Your task to perform on an android device: Search for Italian restaurants on Maps Image 0: 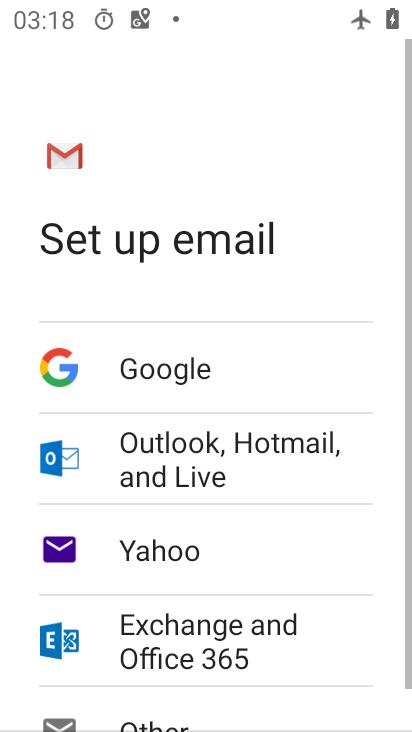
Step 0: press home button
Your task to perform on an android device: Search for Italian restaurants on Maps Image 1: 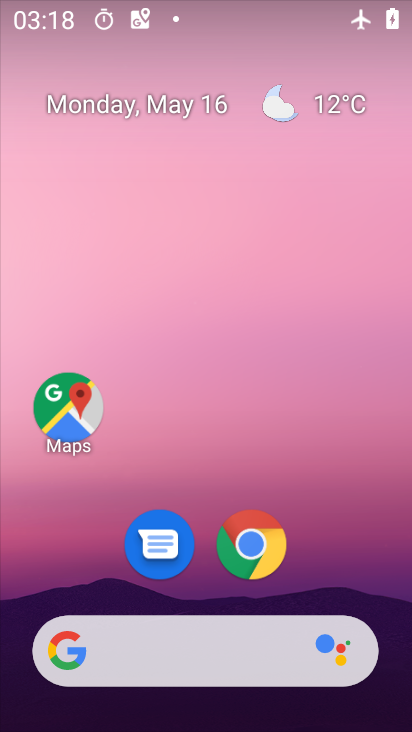
Step 1: drag from (208, 723) to (192, 184)
Your task to perform on an android device: Search for Italian restaurants on Maps Image 2: 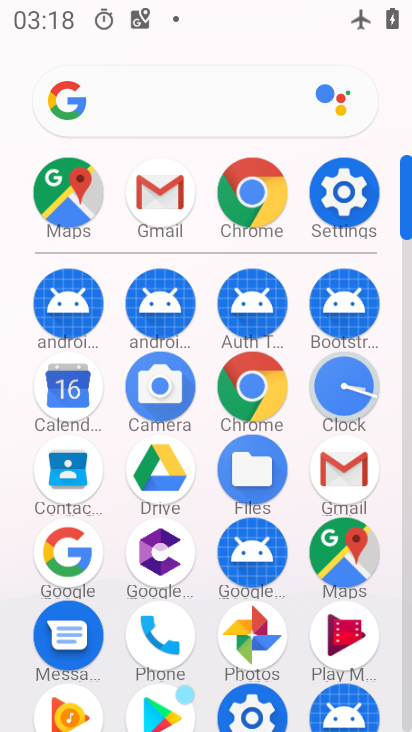
Step 2: click (336, 550)
Your task to perform on an android device: Search for Italian restaurants on Maps Image 3: 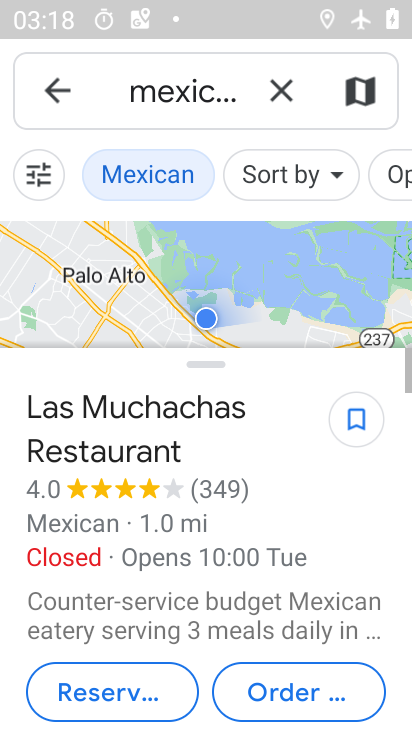
Step 3: click (281, 83)
Your task to perform on an android device: Search for Italian restaurants on Maps Image 4: 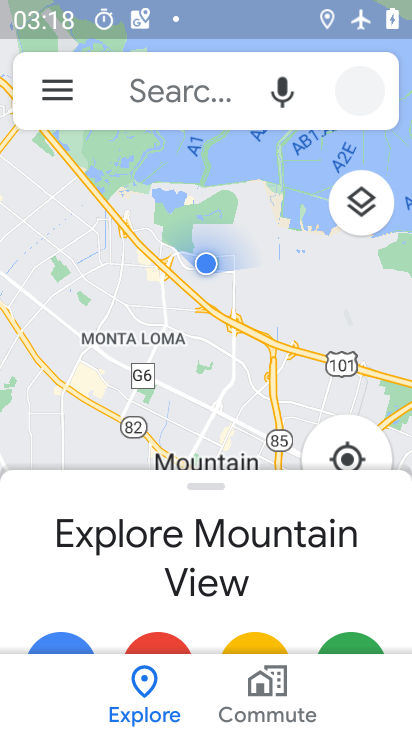
Step 4: click (177, 91)
Your task to perform on an android device: Search for Italian restaurants on Maps Image 5: 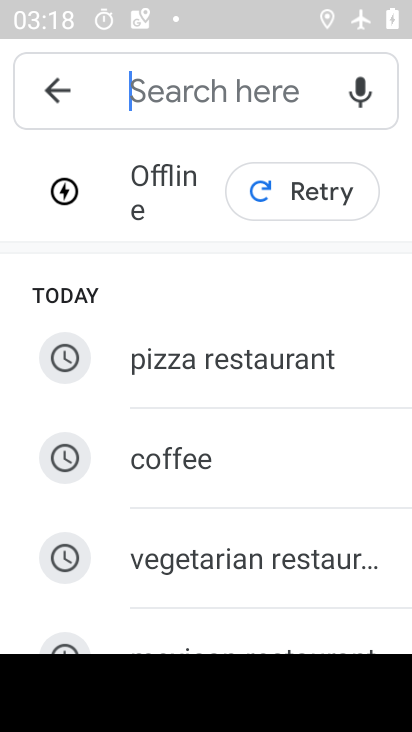
Step 5: type "italian restaurants"
Your task to perform on an android device: Search for Italian restaurants on Maps Image 6: 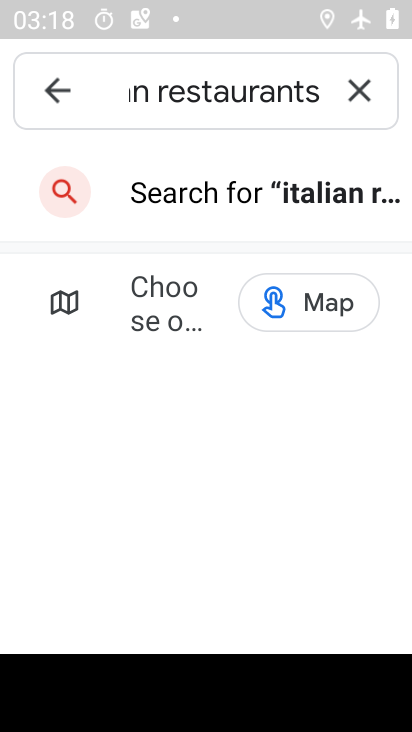
Step 6: click (299, 180)
Your task to perform on an android device: Search for Italian restaurants on Maps Image 7: 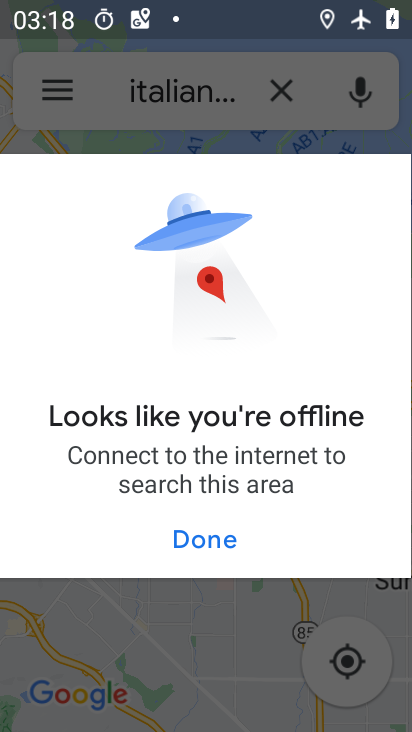
Step 7: task complete